Your task to perform on an android device: Open settings on Google Maps Image 0: 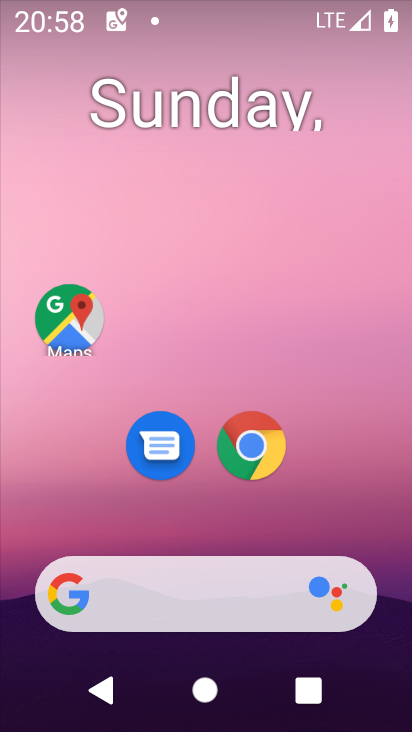
Step 0: task complete